Your task to perform on an android device: turn off priority inbox in the gmail app Image 0: 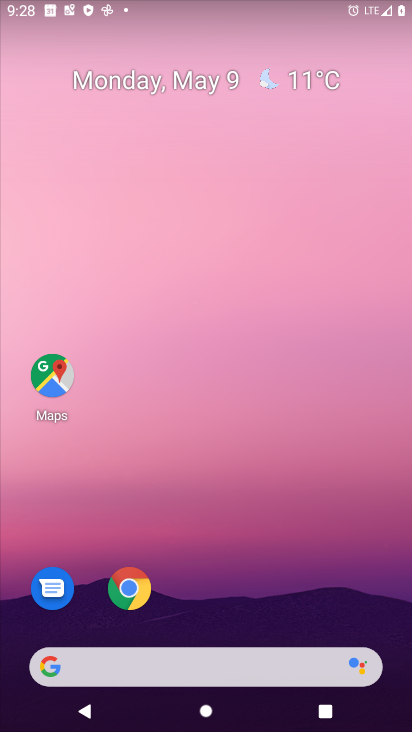
Step 0: drag from (317, 606) to (306, 152)
Your task to perform on an android device: turn off priority inbox in the gmail app Image 1: 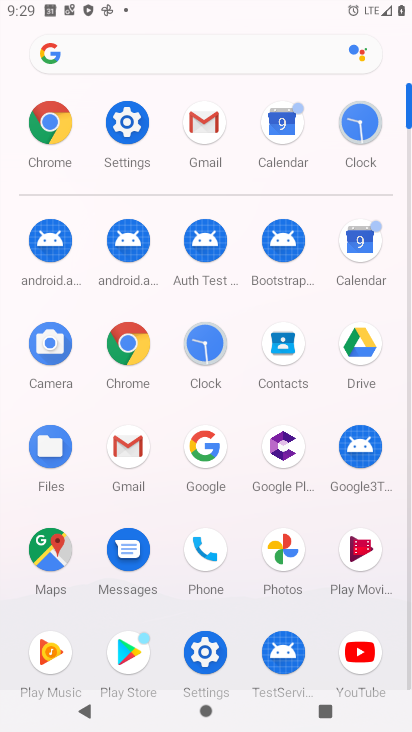
Step 1: click (118, 452)
Your task to perform on an android device: turn off priority inbox in the gmail app Image 2: 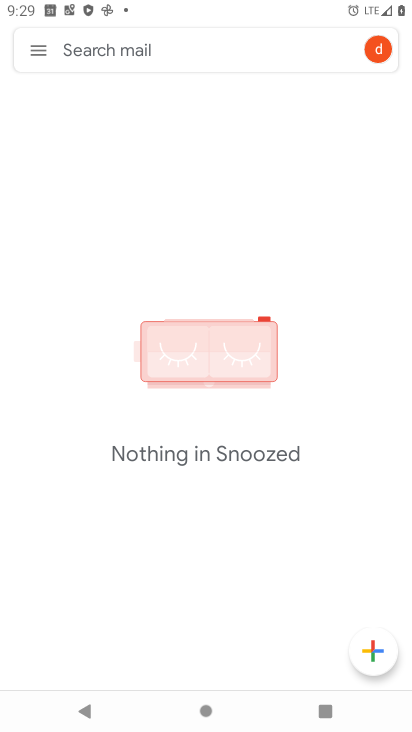
Step 2: click (42, 52)
Your task to perform on an android device: turn off priority inbox in the gmail app Image 3: 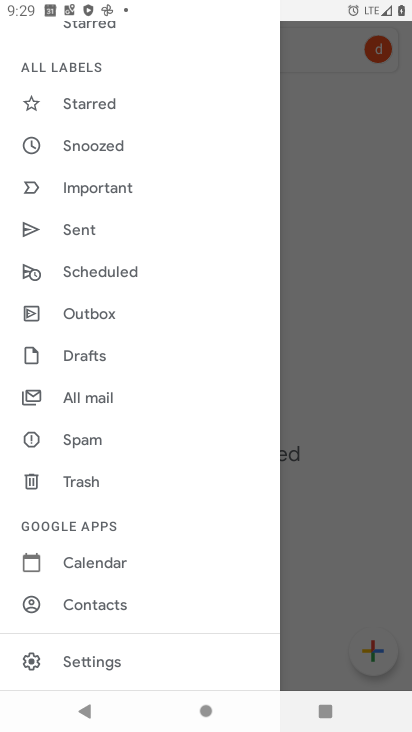
Step 3: click (112, 665)
Your task to perform on an android device: turn off priority inbox in the gmail app Image 4: 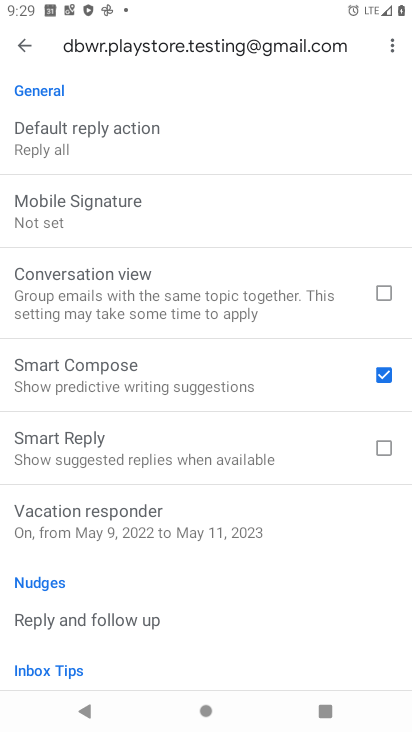
Step 4: drag from (119, 235) to (128, 638)
Your task to perform on an android device: turn off priority inbox in the gmail app Image 5: 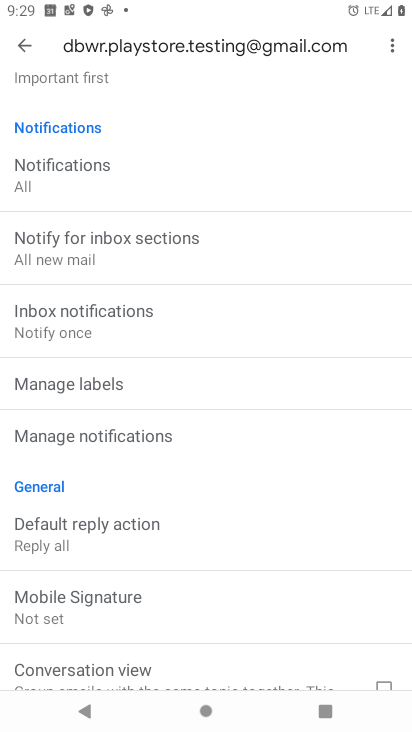
Step 5: drag from (99, 184) to (79, 640)
Your task to perform on an android device: turn off priority inbox in the gmail app Image 6: 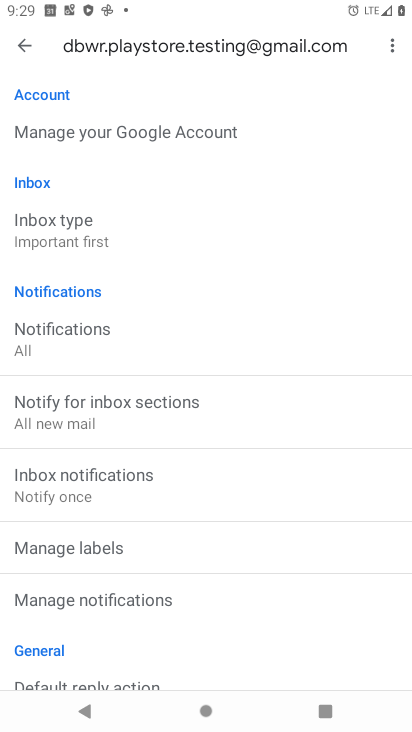
Step 6: click (122, 257)
Your task to perform on an android device: turn off priority inbox in the gmail app Image 7: 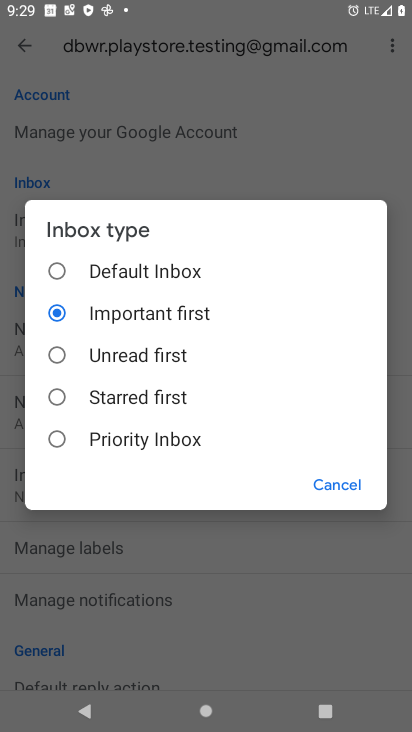
Step 7: task complete